Your task to perform on an android device: turn on javascript in the chrome app Image 0: 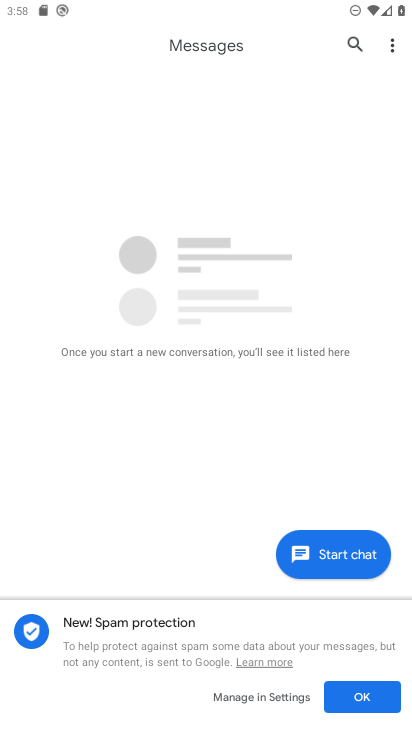
Step 0: press home button
Your task to perform on an android device: turn on javascript in the chrome app Image 1: 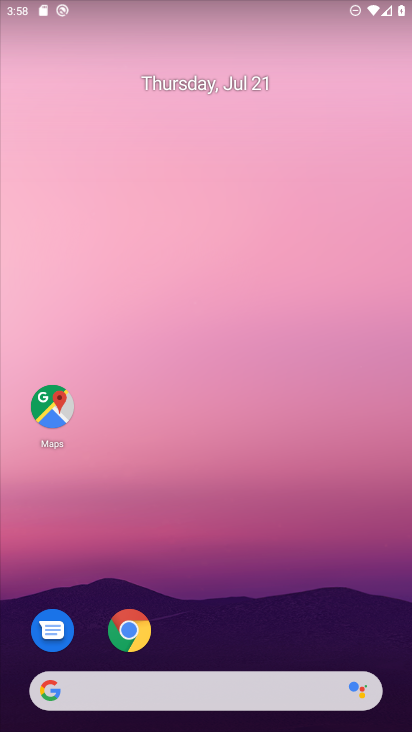
Step 1: click (150, 644)
Your task to perform on an android device: turn on javascript in the chrome app Image 2: 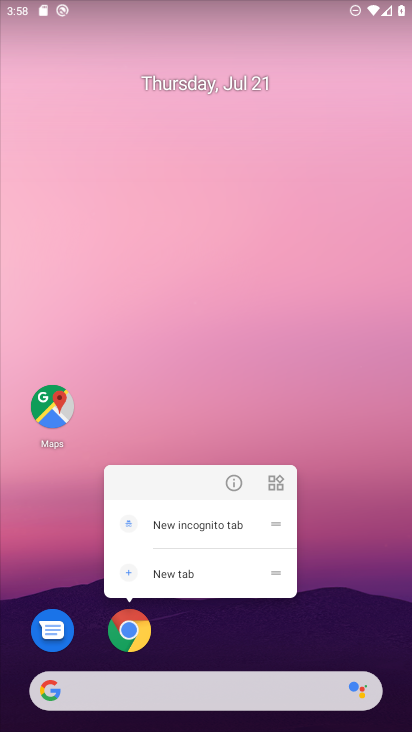
Step 2: click (137, 632)
Your task to perform on an android device: turn on javascript in the chrome app Image 3: 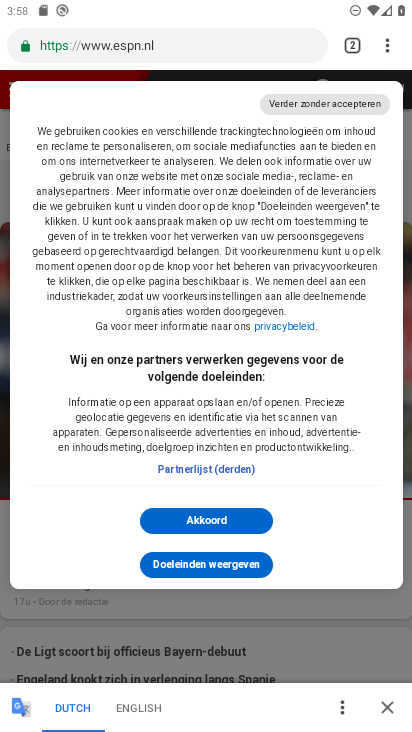
Step 3: click (386, 47)
Your task to perform on an android device: turn on javascript in the chrome app Image 4: 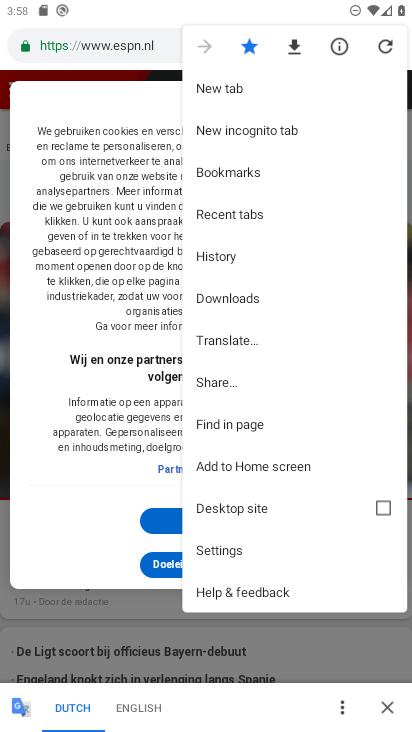
Step 4: click (236, 554)
Your task to perform on an android device: turn on javascript in the chrome app Image 5: 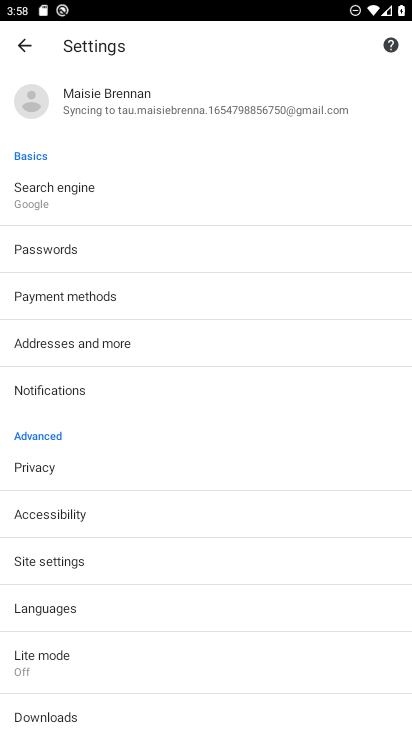
Step 5: click (32, 567)
Your task to perform on an android device: turn on javascript in the chrome app Image 6: 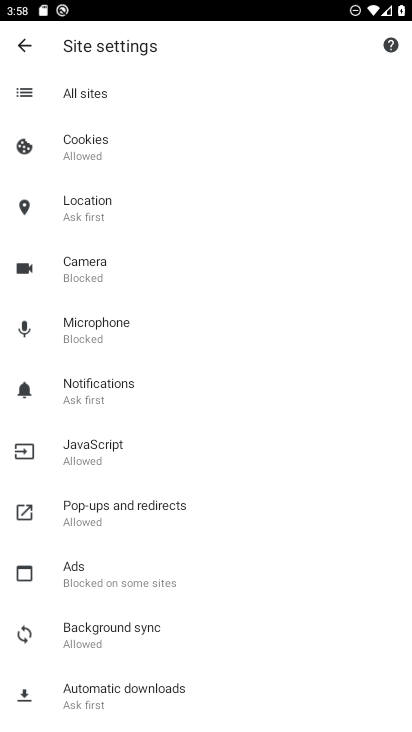
Step 6: click (104, 456)
Your task to perform on an android device: turn on javascript in the chrome app Image 7: 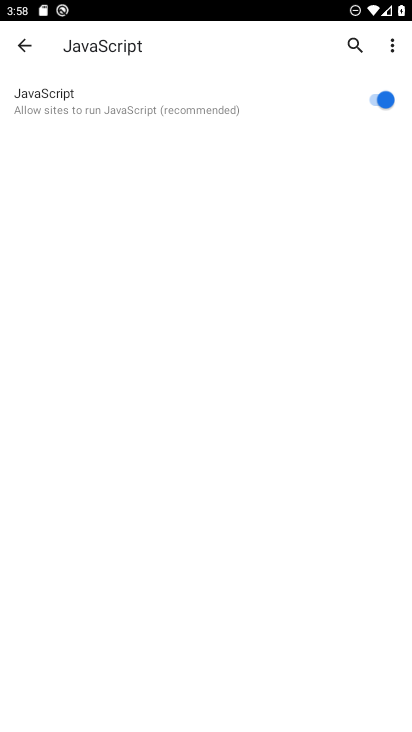
Step 7: task complete